Your task to perform on an android device: Go to accessibility settings Image 0: 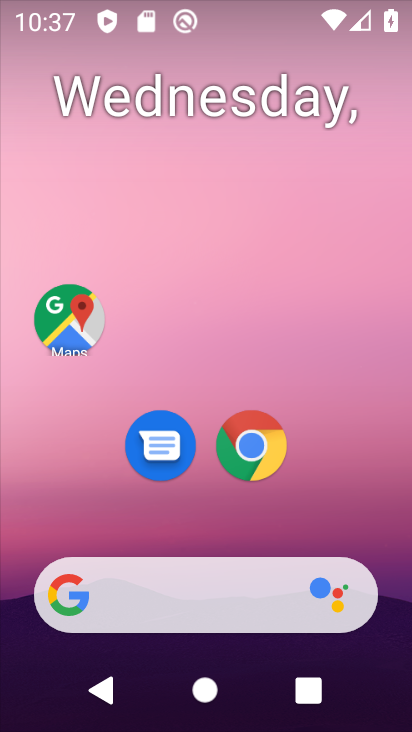
Step 0: drag from (231, 480) to (270, 12)
Your task to perform on an android device: Go to accessibility settings Image 1: 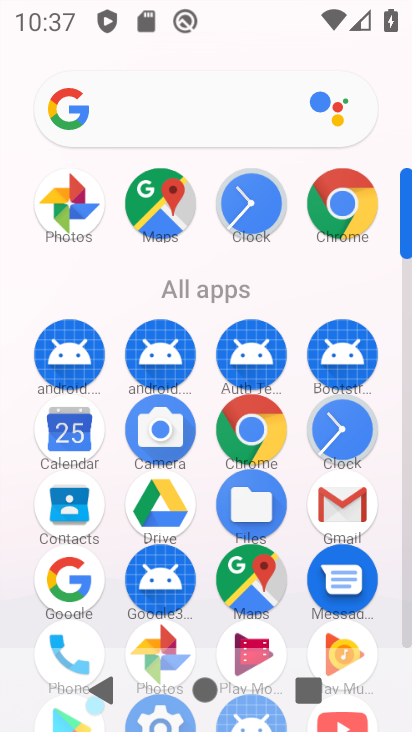
Step 1: drag from (193, 575) to (229, 108)
Your task to perform on an android device: Go to accessibility settings Image 2: 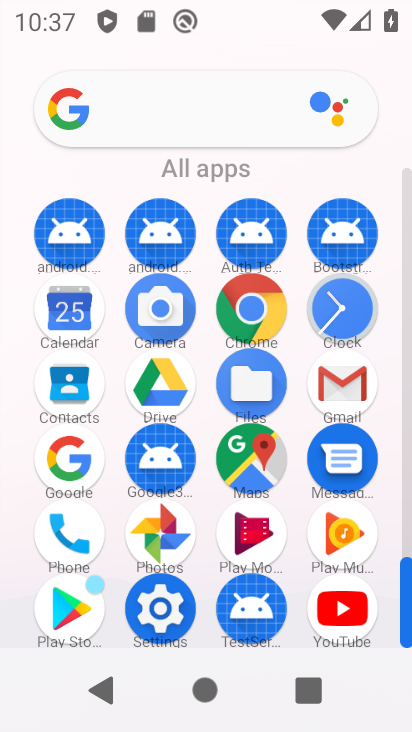
Step 2: click (160, 626)
Your task to perform on an android device: Go to accessibility settings Image 3: 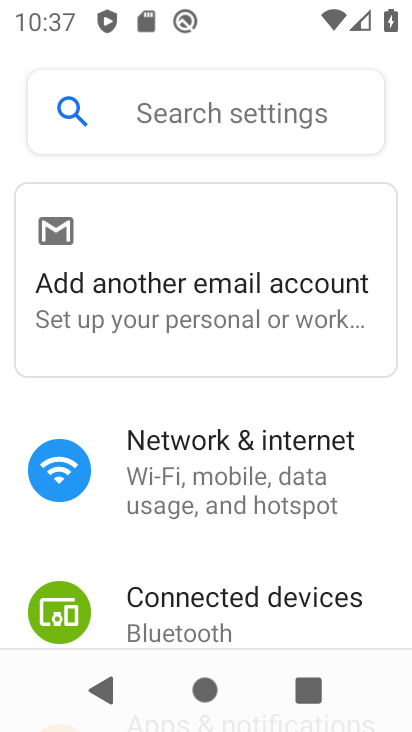
Step 3: drag from (185, 588) to (235, 182)
Your task to perform on an android device: Go to accessibility settings Image 4: 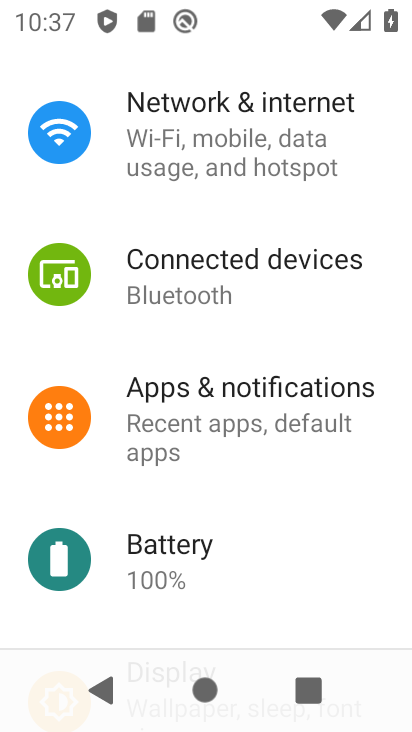
Step 4: drag from (211, 572) to (263, 73)
Your task to perform on an android device: Go to accessibility settings Image 5: 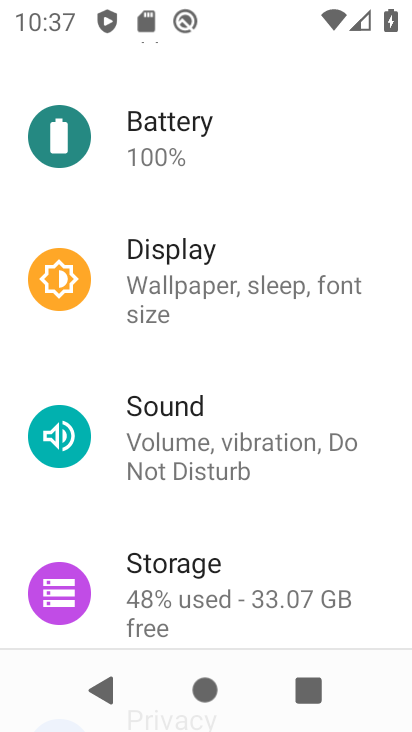
Step 5: drag from (231, 556) to (251, 53)
Your task to perform on an android device: Go to accessibility settings Image 6: 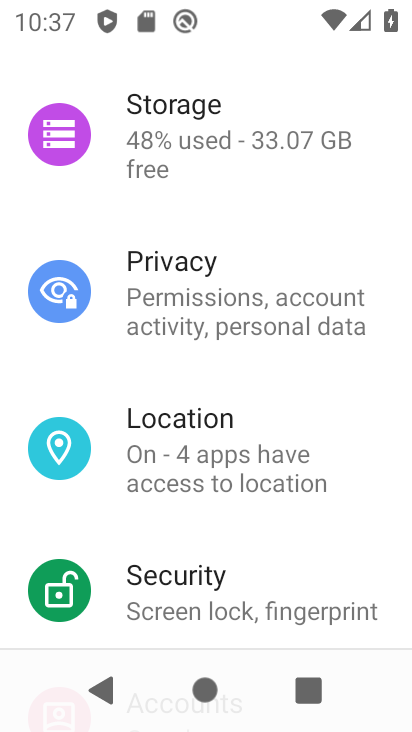
Step 6: drag from (202, 591) to (280, 45)
Your task to perform on an android device: Go to accessibility settings Image 7: 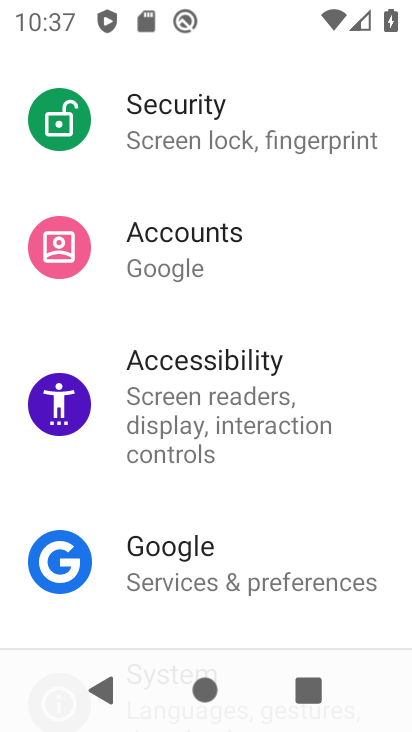
Step 7: click (194, 369)
Your task to perform on an android device: Go to accessibility settings Image 8: 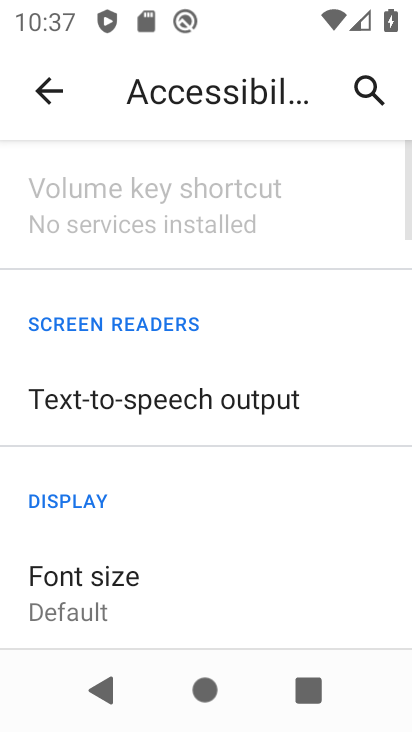
Step 8: task complete